Your task to perform on an android device: Toggle the flashlight Image 0: 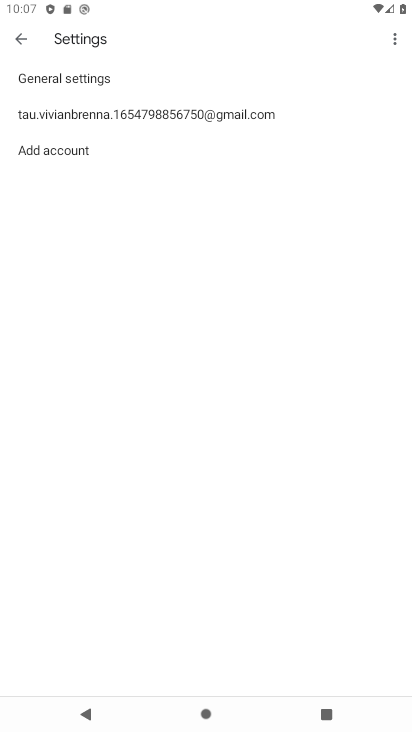
Step 0: press home button
Your task to perform on an android device: Toggle the flashlight Image 1: 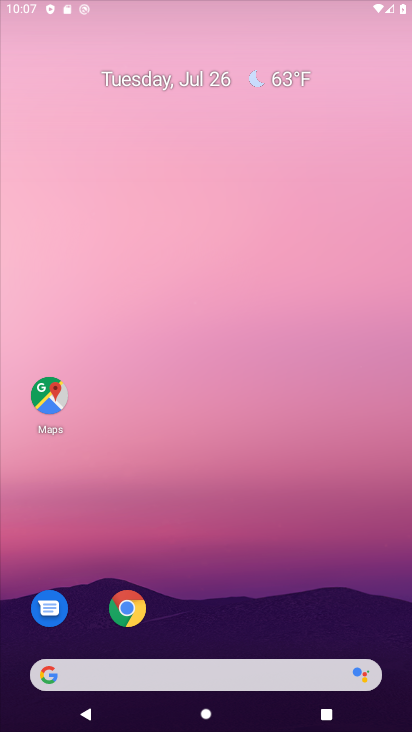
Step 1: task complete